Your task to perform on an android device: open a bookmark in the chrome app Image 0: 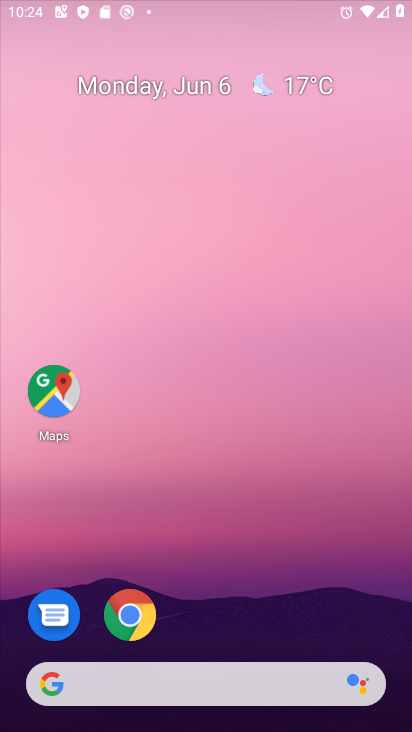
Step 0: press home button
Your task to perform on an android device: open a bookmark in the chrome app Image 1: 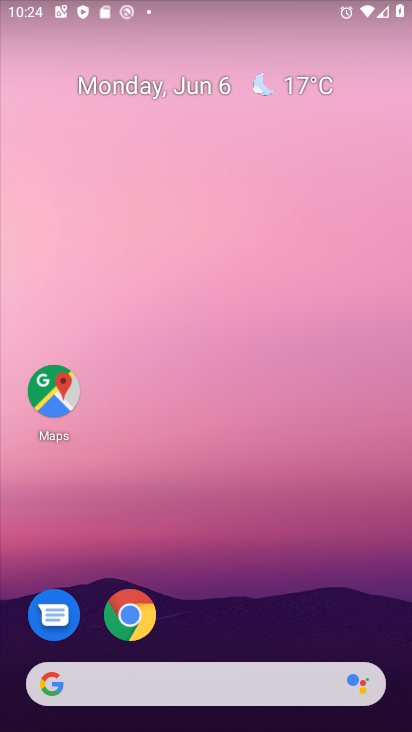
Step 1: click (128, 611)
Your task to perform on an android device: open a bookmark in the chrome app Image 2: 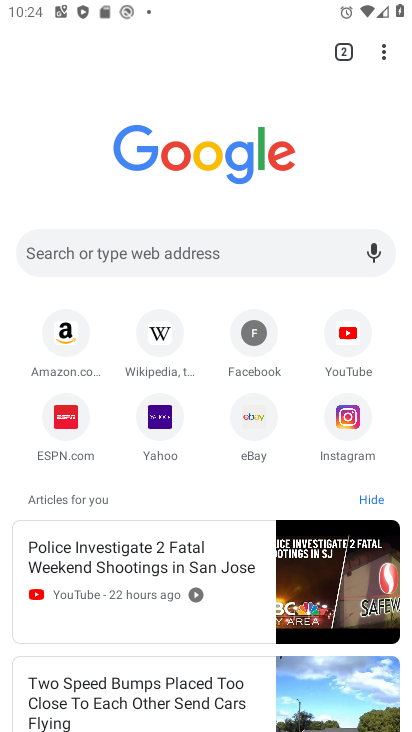
Step 2: click (385, 50)
Your task to perform on an android device: open a bookmark in the chrome app Image 3: 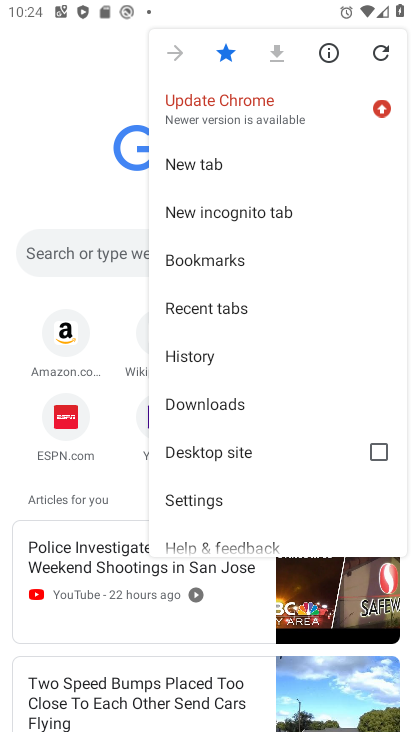
Step 3: click (248, 259)
Your task to perform on an android device: open a bookmark in the chrome app Image 4: 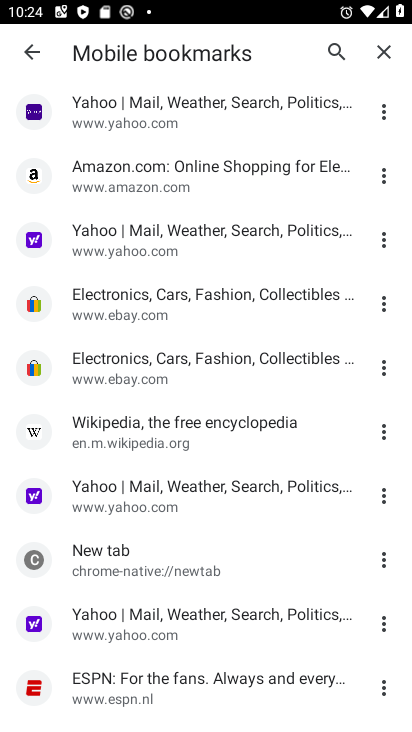
Step 4: click (173, 302)
Your task to perform on an android device: open a bookmark in the chrome app Image 5: 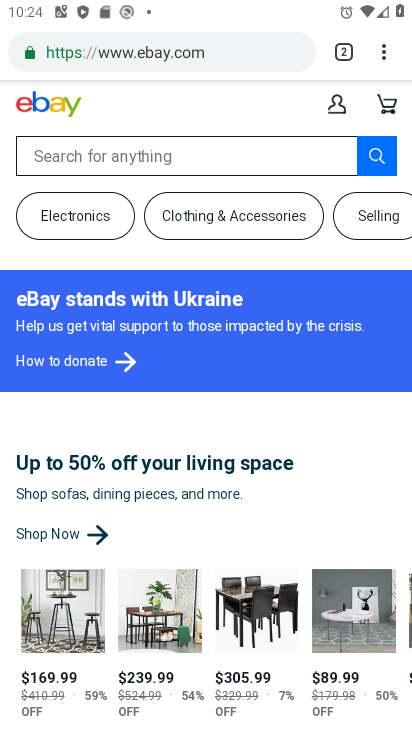
Step 5: drag from (210, 569) to (209, 357)
Your task to perform on an android device: open a bookmark in the chrome app Image 6: 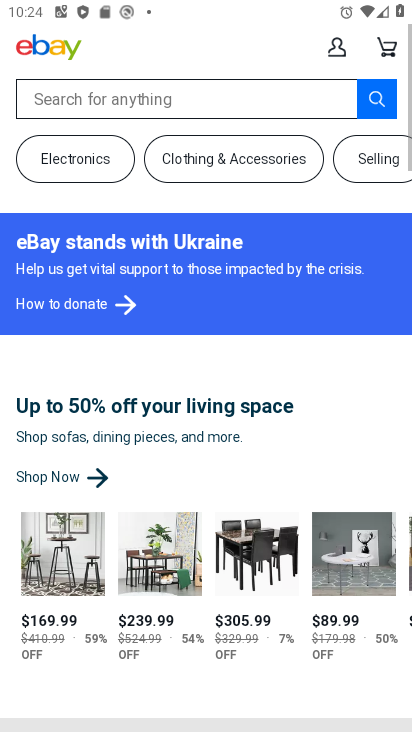
Step 6: click (203, 264)
Your task to perform on an android device: open a bookmark in the chrome app Image 7: 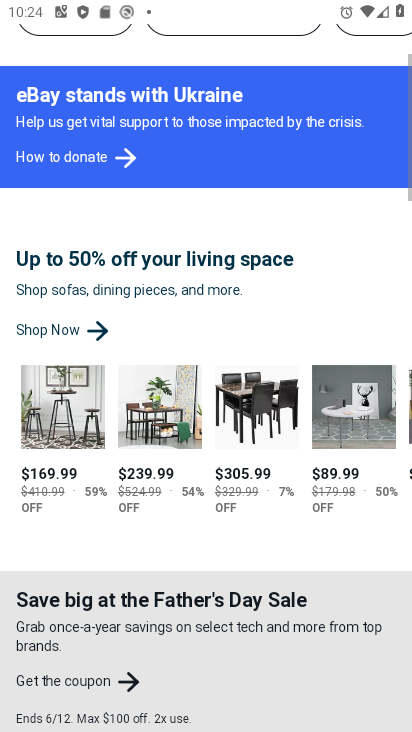
Step 7: click (195, 199)
Your task to perform on an android device: open a bookmark in the chrome app Image 8: 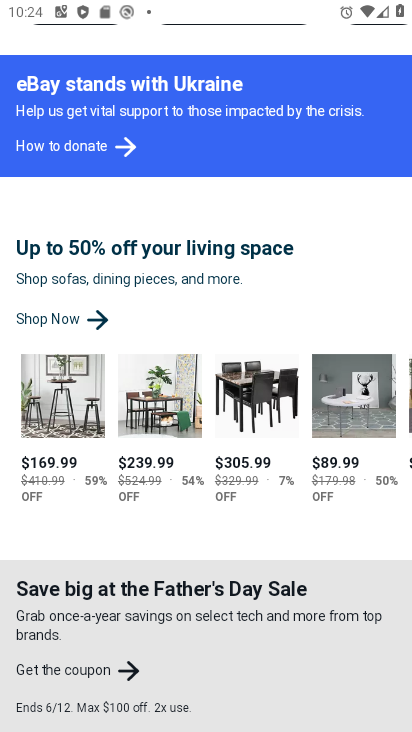
Step 8: task complete